Your task to perform on an android device: Open notification settings Image 0: 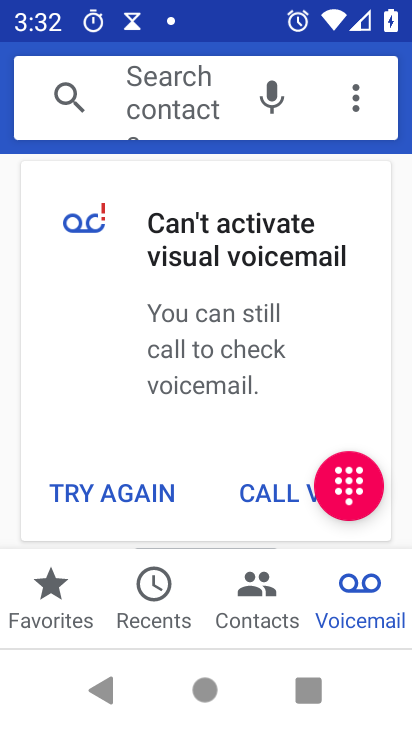
Step 0: press home button
Your task to perform on an android device: Open notification settings Image 1: 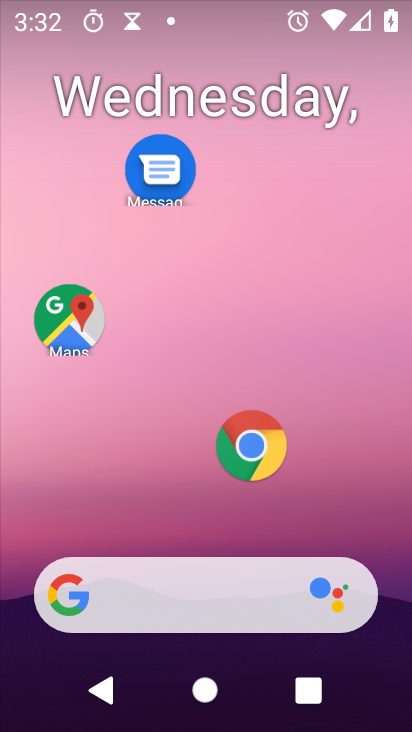
Step 1: drag from (32, 660) to (400, 142)
Your task to perform on an android device: Open notification settings Image 2: 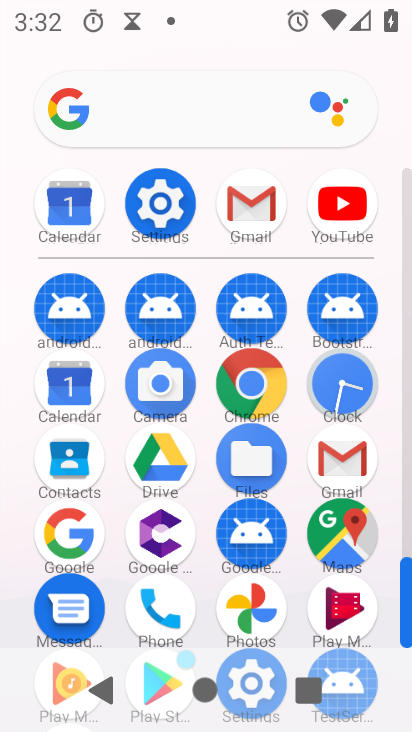
Step 2: click (151, 215)
Your task to perform on an android device: Open notification settings Image 3: 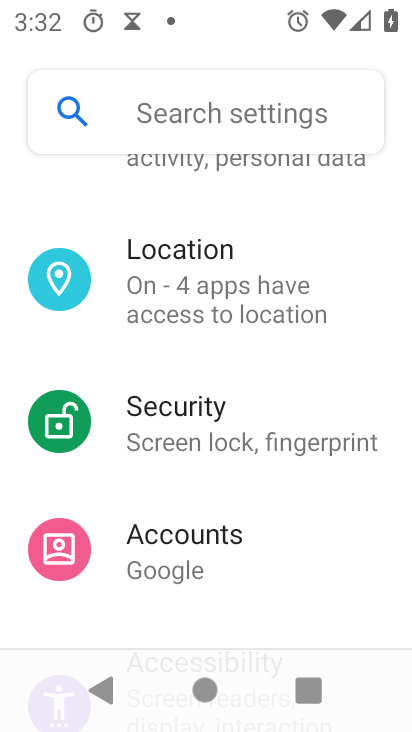
Step 3: drag from (170, 228) to (171, 539)
Your task to perform on an android device: Open notification settings Image 4: 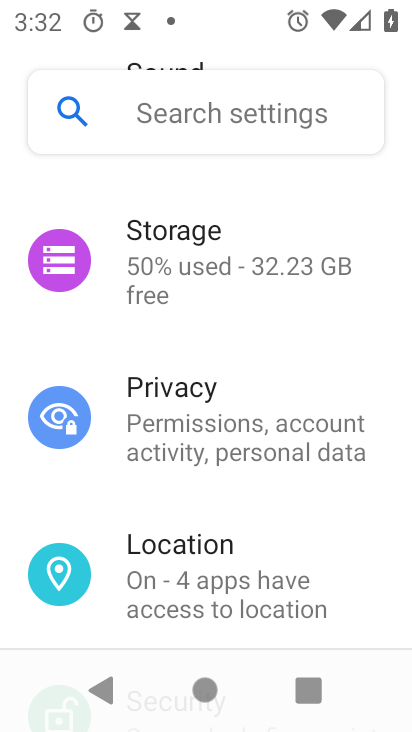
Step 4: drag from (204, 198) to (205, 514)
Your task to perform on an android device: Open notification settings Image 5: 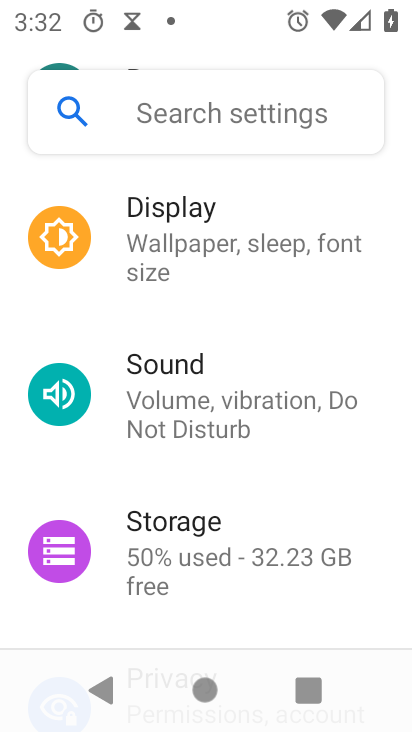
Step 5: drag from (220, 173) to (175, 519)
Your task to perform on an android device: Open notification settings Image 6: 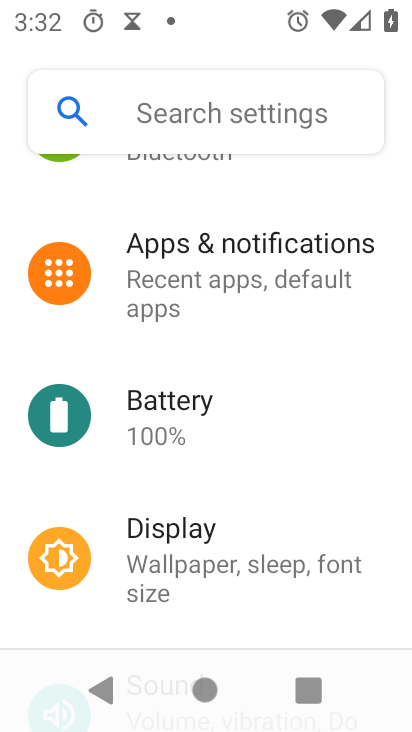
Step 6: click (213, 280)
Your task to perform on an android device: Open notification settings Image 7: 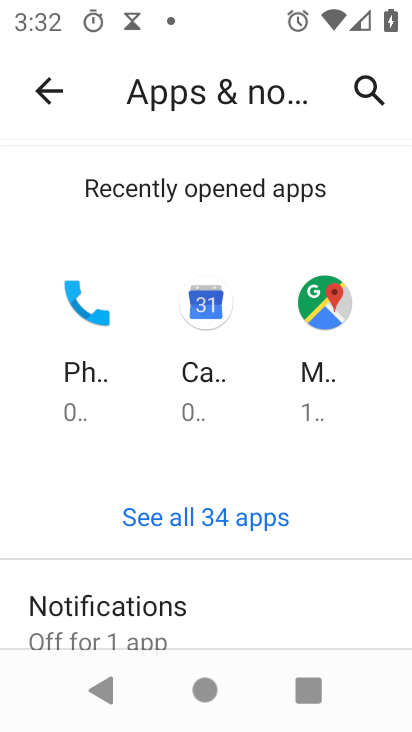
Step 7: click (68, 598)
Your task to perform on an android device: Open notification settings Image 8: 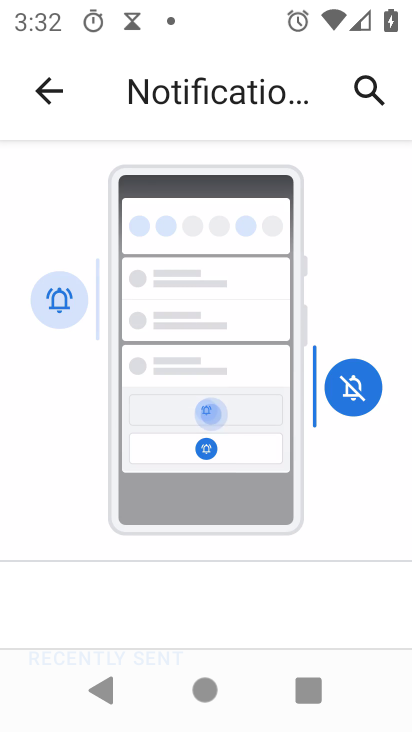
Step 8: task complete